Your task to perform on an android device: Open the stopwatch Image 0: 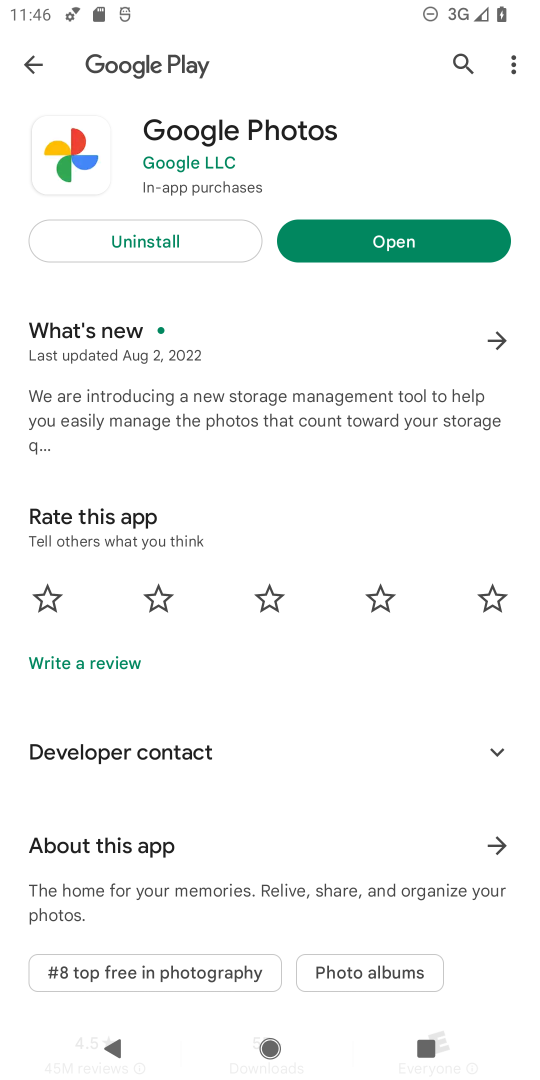
Step 0: press home button
Your task to perform on an android device: Open the stopwatch Image 1: 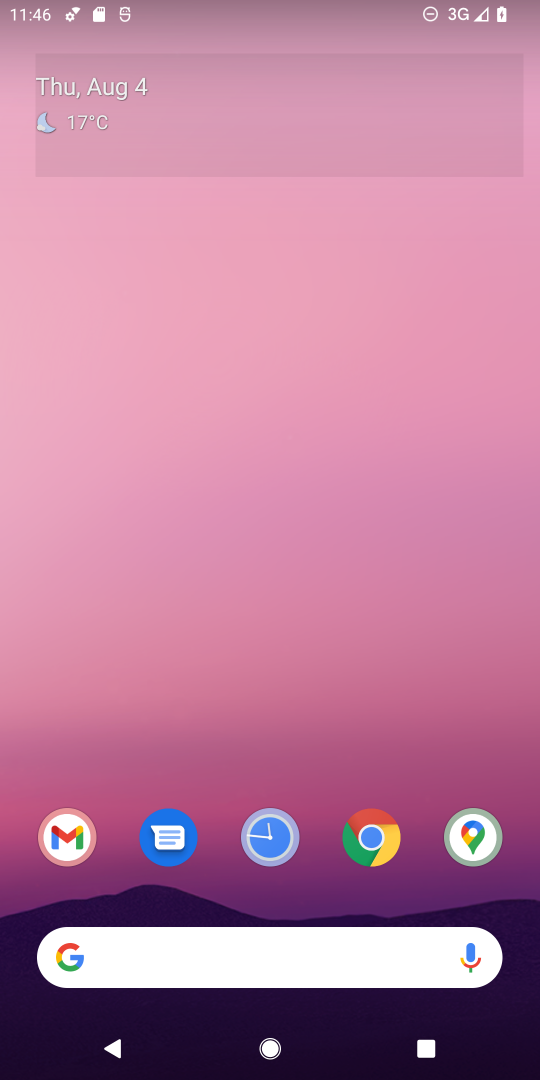
Step 1: drag from (423, 898) to (274, 8)
Your task to perform on an android device: Open the stopwatch Image 2: 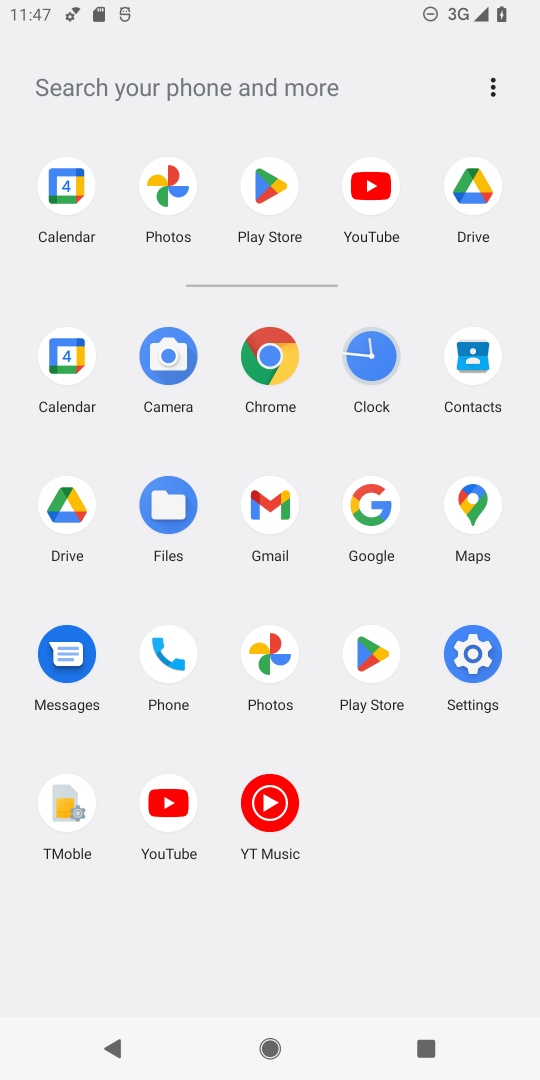
Step 2: click (371, 380)
Your task to perform on an android device: Open the stopwatch Image 3: 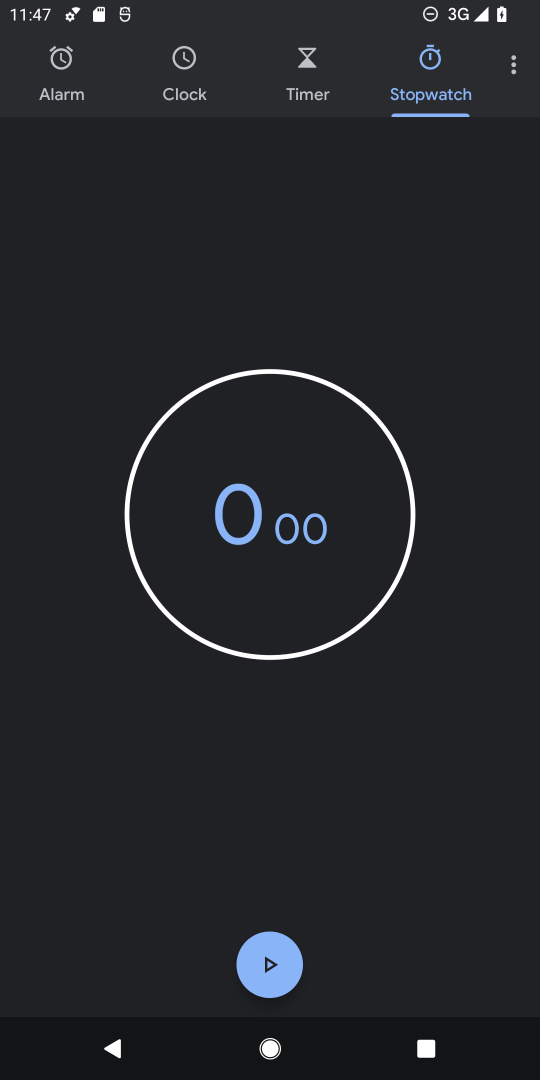
Step 3: task complete